Your task to perform on an android device: Open Google Chrome and open the bookmarks view Image 0: 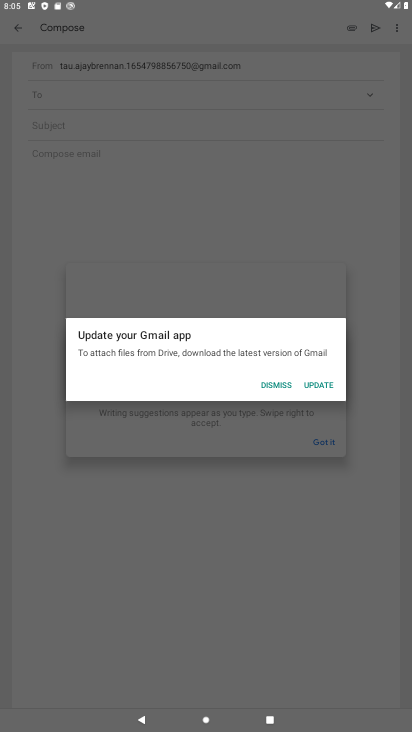
Step 0: press home button
Your task to perform on an android device: Open Google Chrome and open the bookmarks view Image 1: 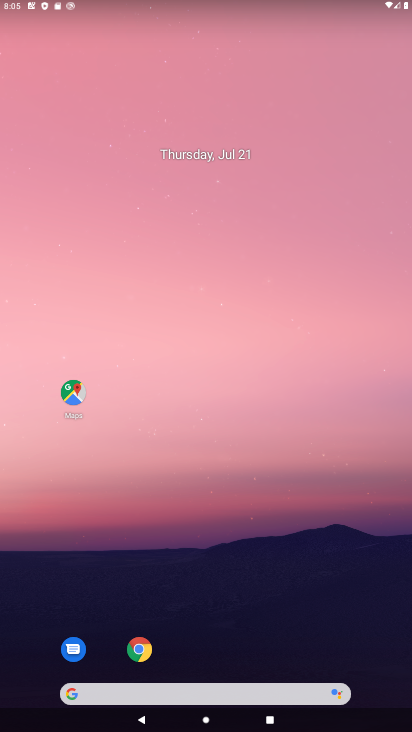
Step 1: click (144, 651)
Your task to perform on an android device: Open Google Chrome and open the bookmarks view Image 2: 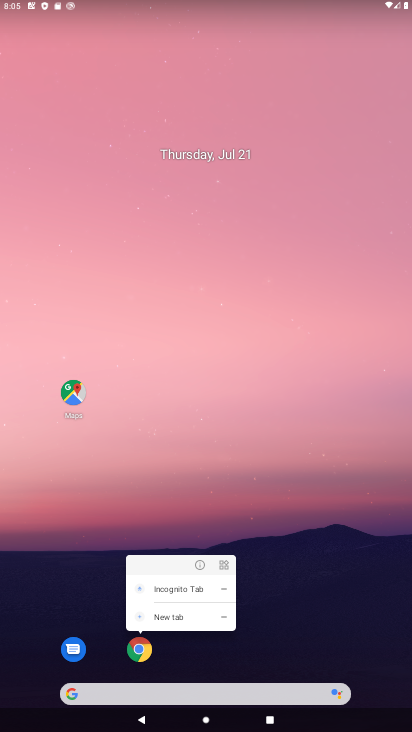
Step 2: click (144, 651)
Your task to perform on an android device: Open Google Chrome and open the bookmarks view Image 3: 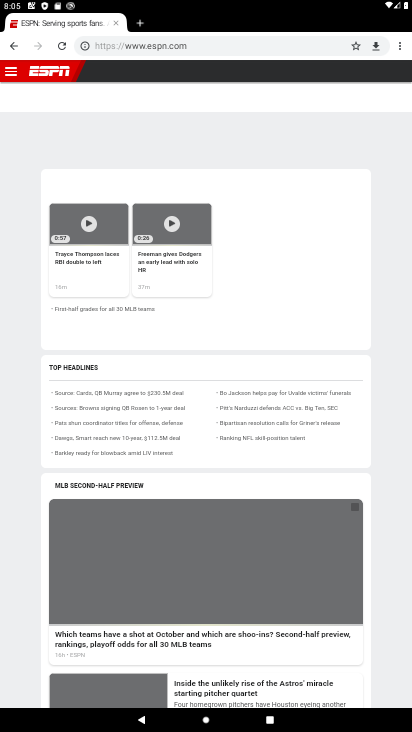
Step 3: click (397, 46)
Your task to perform on an android device: Open Google Chrome and open the bookmarks view Image 4: 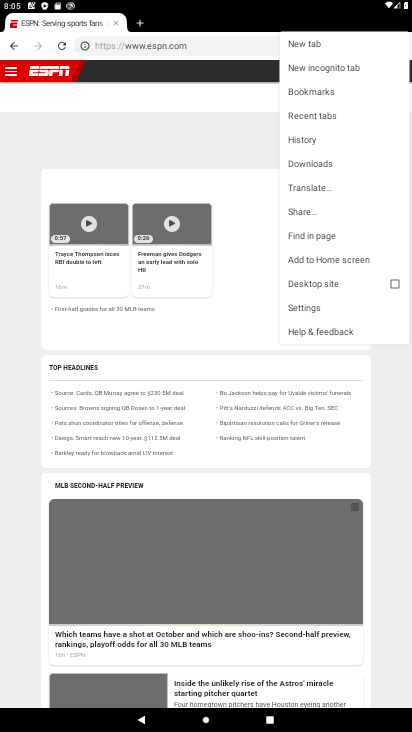
Step 4: click (317, 89)
Your task to perform on an android device: Open Google Chrome and open the bookmarks view Image 5: 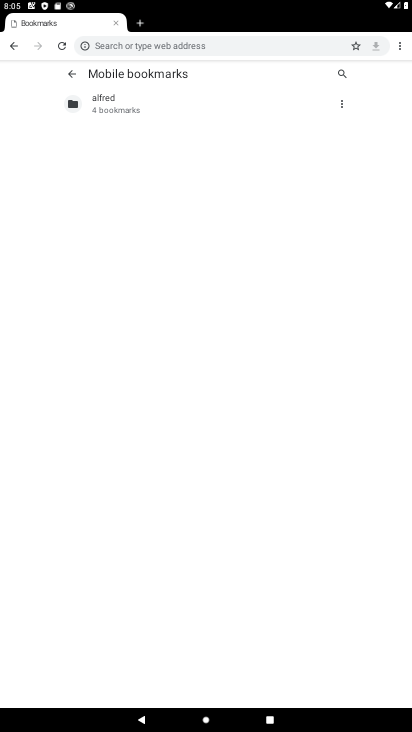
Step 5: click (131, 105)
Your task to perform on an android device: Open Google Chrome and open the bookmarks view Image 6: 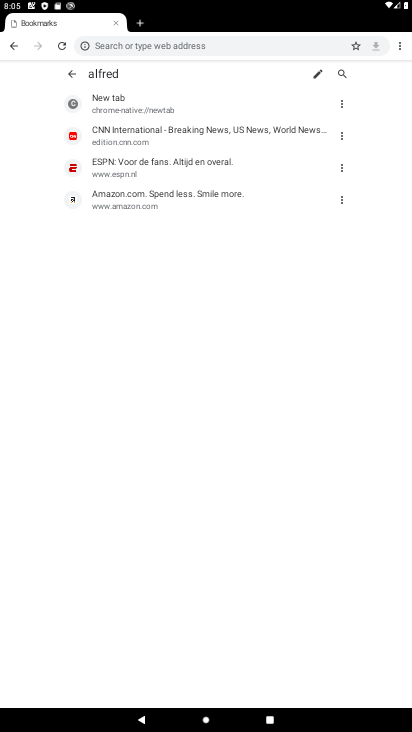
Step 6: click (135, 126)
Your task to perform on an android device: Open Google Chrome and open the bookmarks view Image 7: 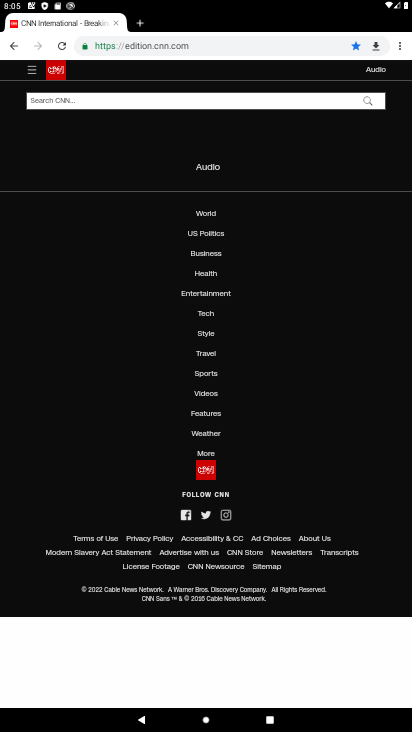
Step 7: task complete